Your task to perform on an android device: change your default location settings in chrome Image 0: 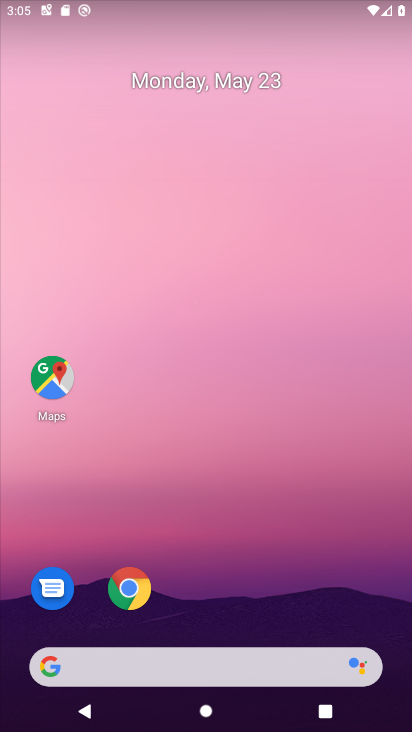
Step 0: drag from (211, 616) to (277, 170)
Your task to perform on an android device: change your default location settings in chrome Image 1: 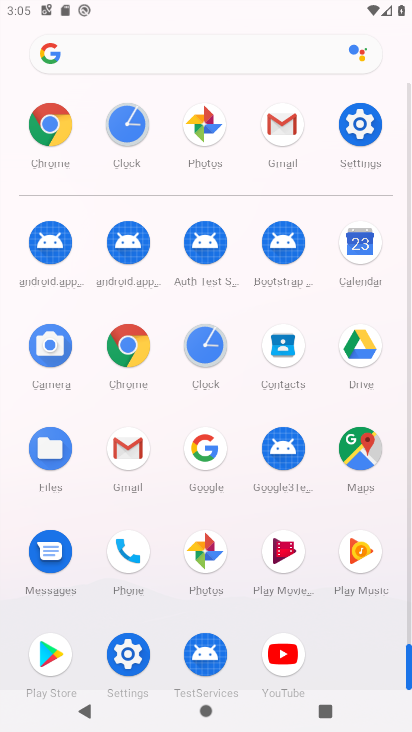
Step 1: click (122, 352)
Your task to perform on an android device: change your default location settings in chrome Image 2: 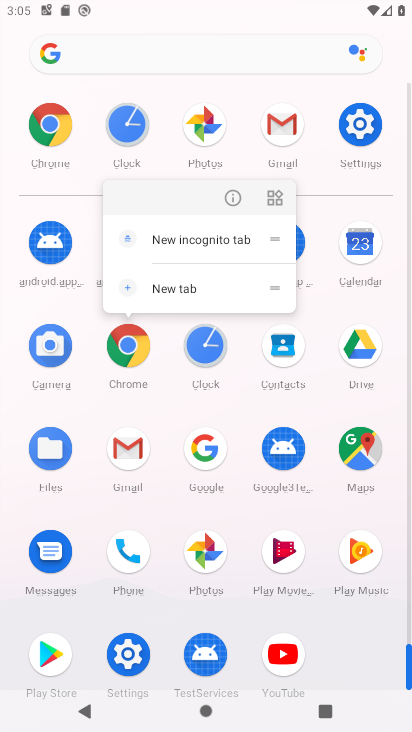
Step 2: click (236, 199)
Your task to perform on an android device: change your default location settings in chrome Image 3: 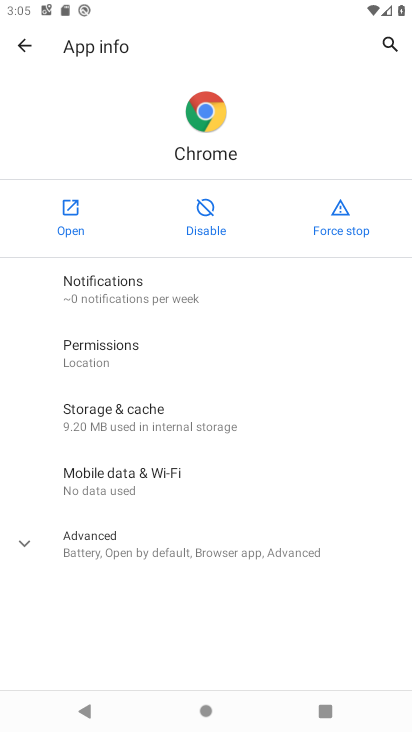
Step 3: click (69, 225)
Your task to perform on an android device: change your default location settings in chrome Image 4: 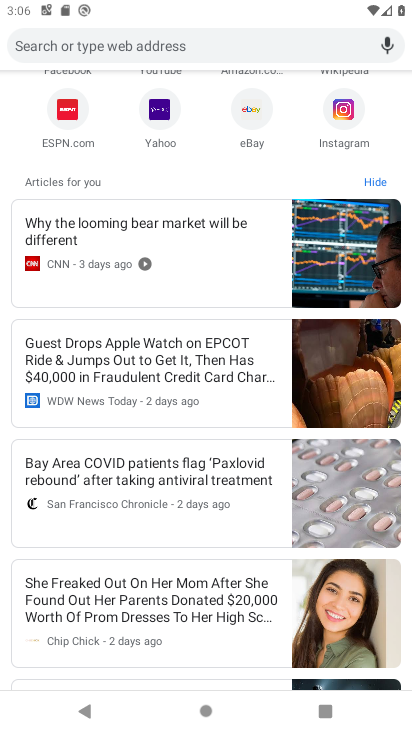
Step 4: drag from (235, 260) to (330, 726)
Your task to perform on an android device: change your default location settings in chrome Image 5: 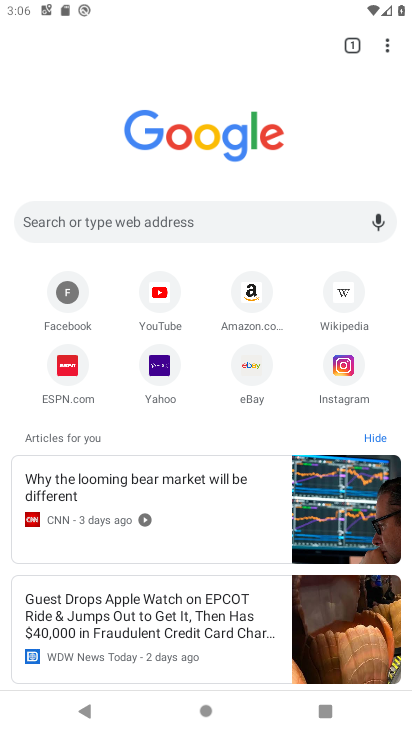
Step 5: click (389, 43)
Your task to perform on an android device: change your default location settings in chrome Image 6: 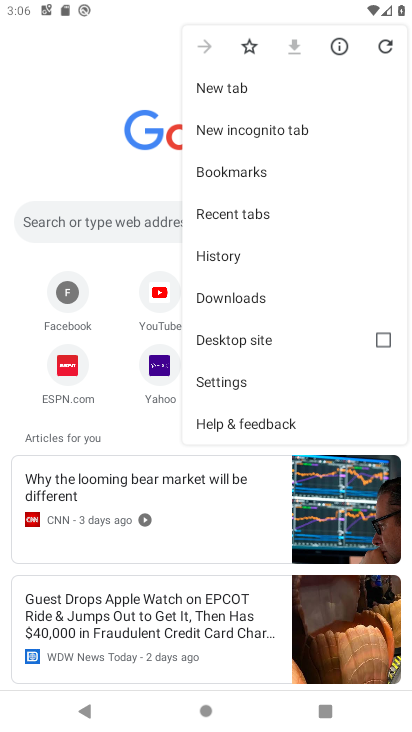
Step 6: click (248, 382)
Your task to perform on an android device: change your default location settings in chrome Image 7: 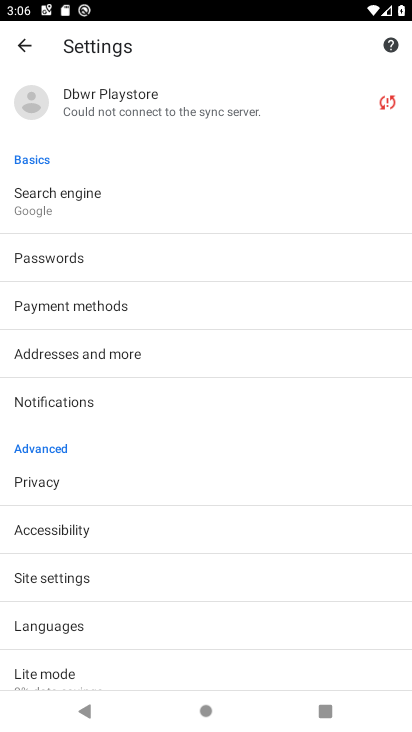
Step 7: drag from (139, 566) to (186, 206)
Your task to perform on an android device: change your default location settings in chrome Image 8: 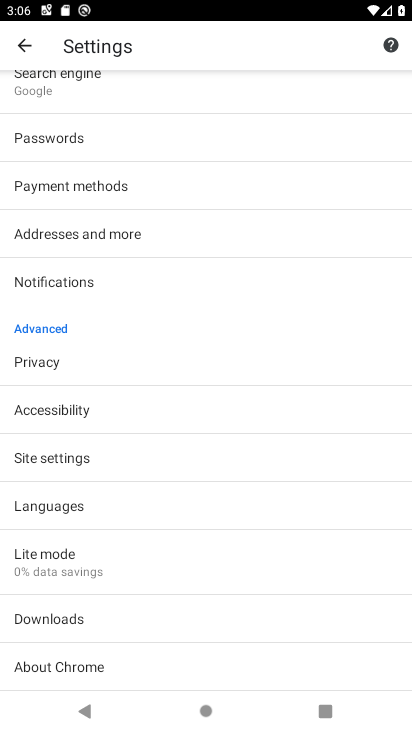
Step 8: click (75, 464)
Your task to perform on an android device: change your default location settings in chrome Image 9: 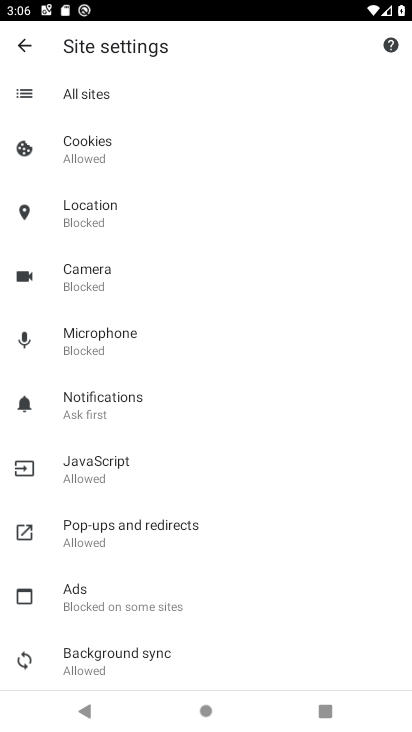
Step 9: click (104, 215)
Your task to perform on an android device: change your default location settings in chrome Image 10: 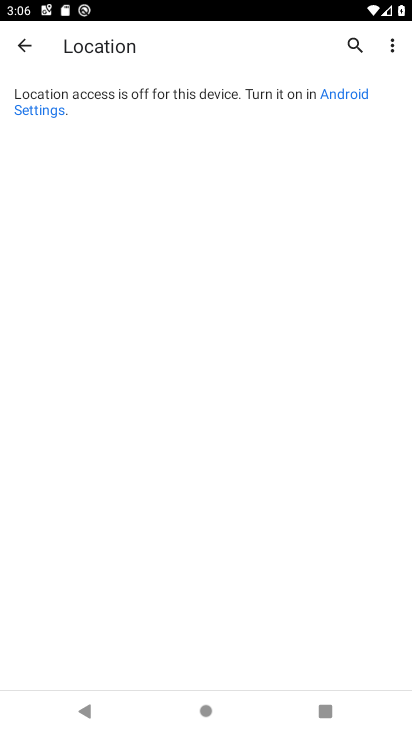
Step 10: drag from (198, 589) to (248, 311)
Your task to perform on an android device: change your default location settings in chrome Image 11: 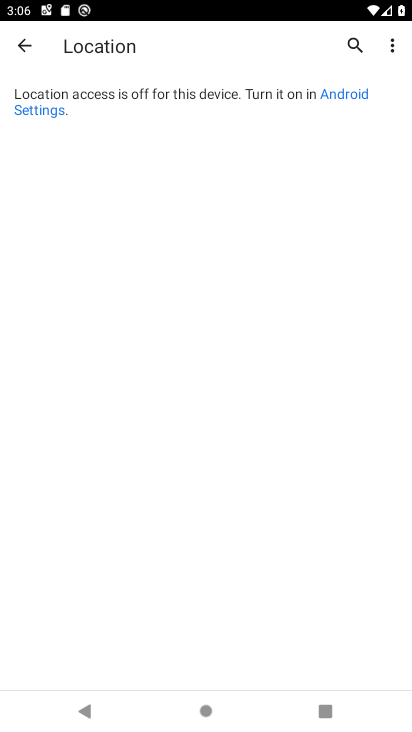
Step 11: click (240, 302)
Your task to perform on an android device: change your default location settings in chrome Image 12: 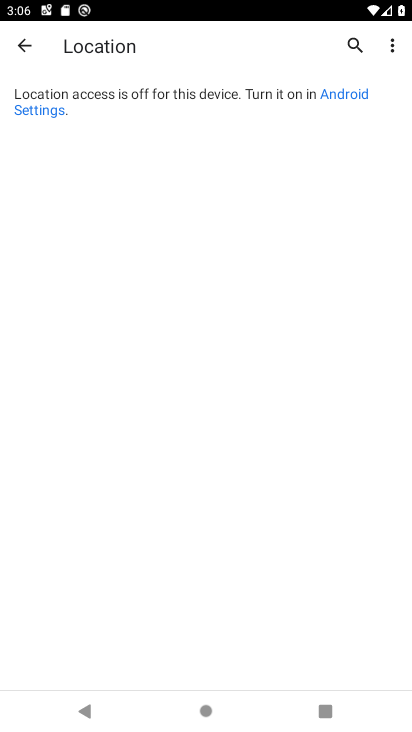
Step 12: task complete